Your task to perform on an android device: open app "Facebook Messenger" Image 0: 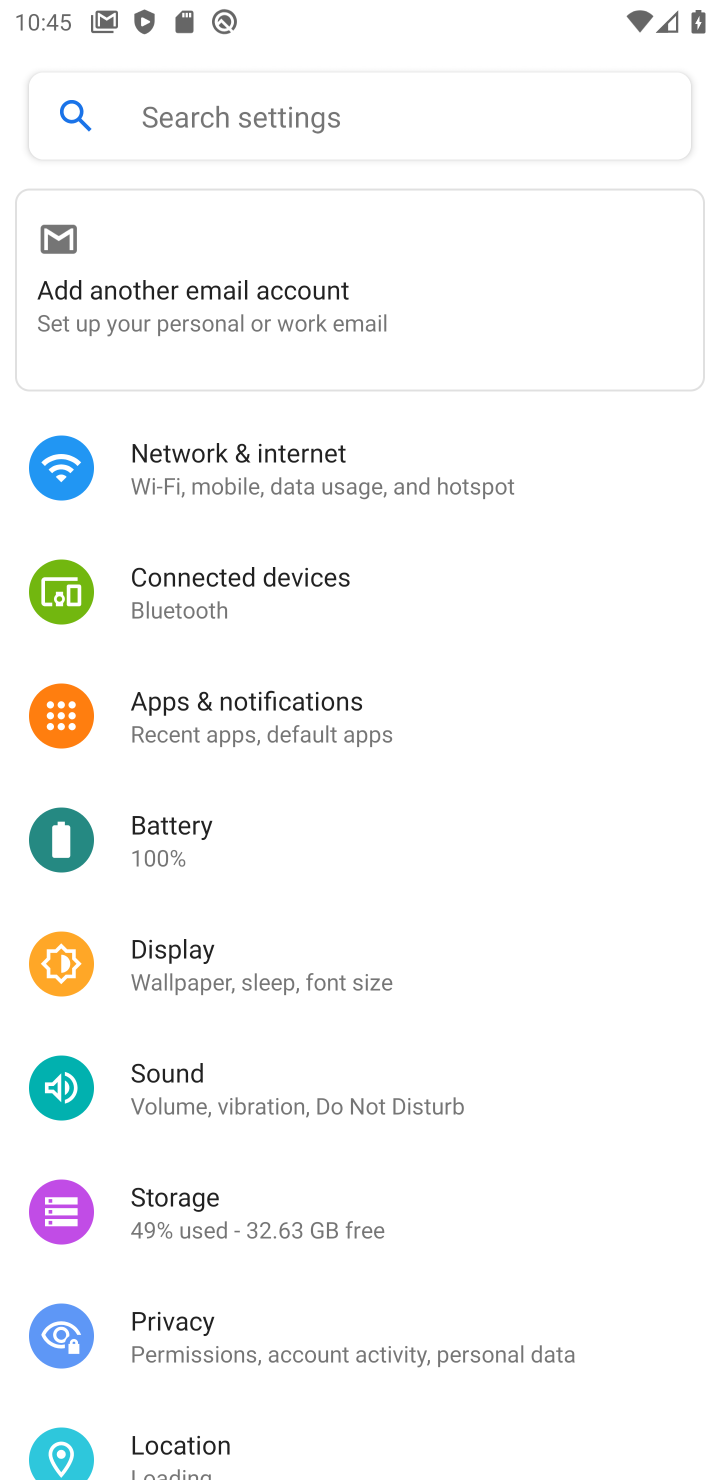
Step 0: press home button
Your task to perform on an android device: open app "Facebook Messenger" Image 1: 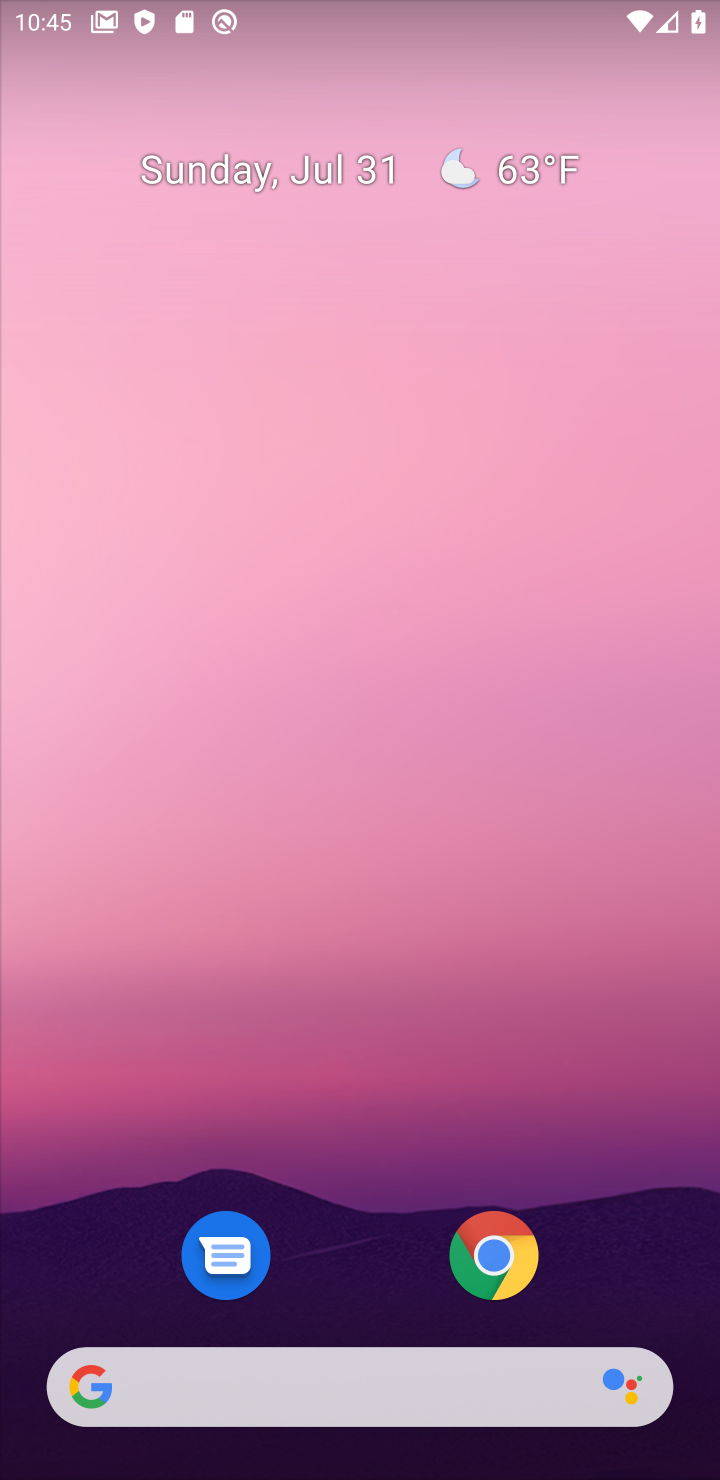
Step 1: drag from (383, 1275) to (473, 0)
Your task to perform on an android device: open app "Facebook Messenger" Image 2: 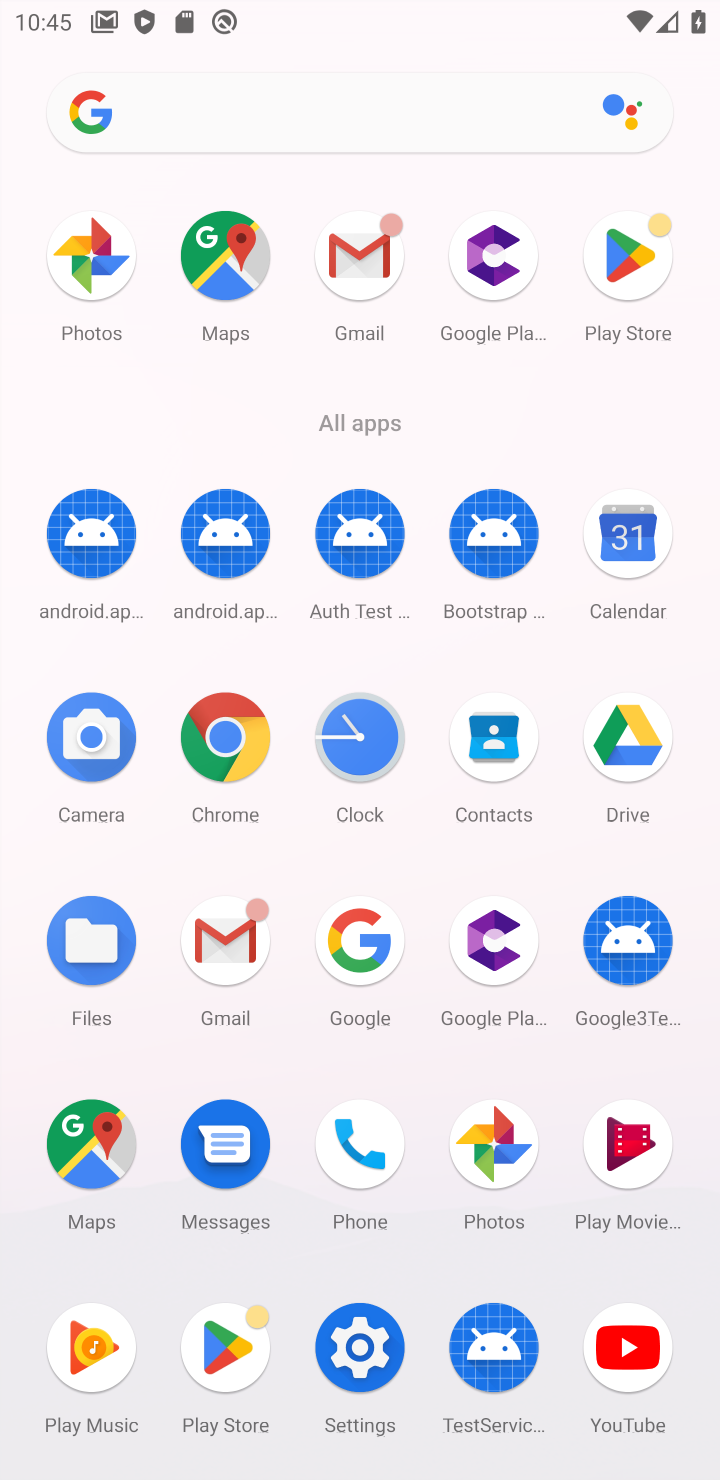
Step 2: click (215, 1385)
Your task to perform on an android device: open app "Facebook Messenger" Image 3: 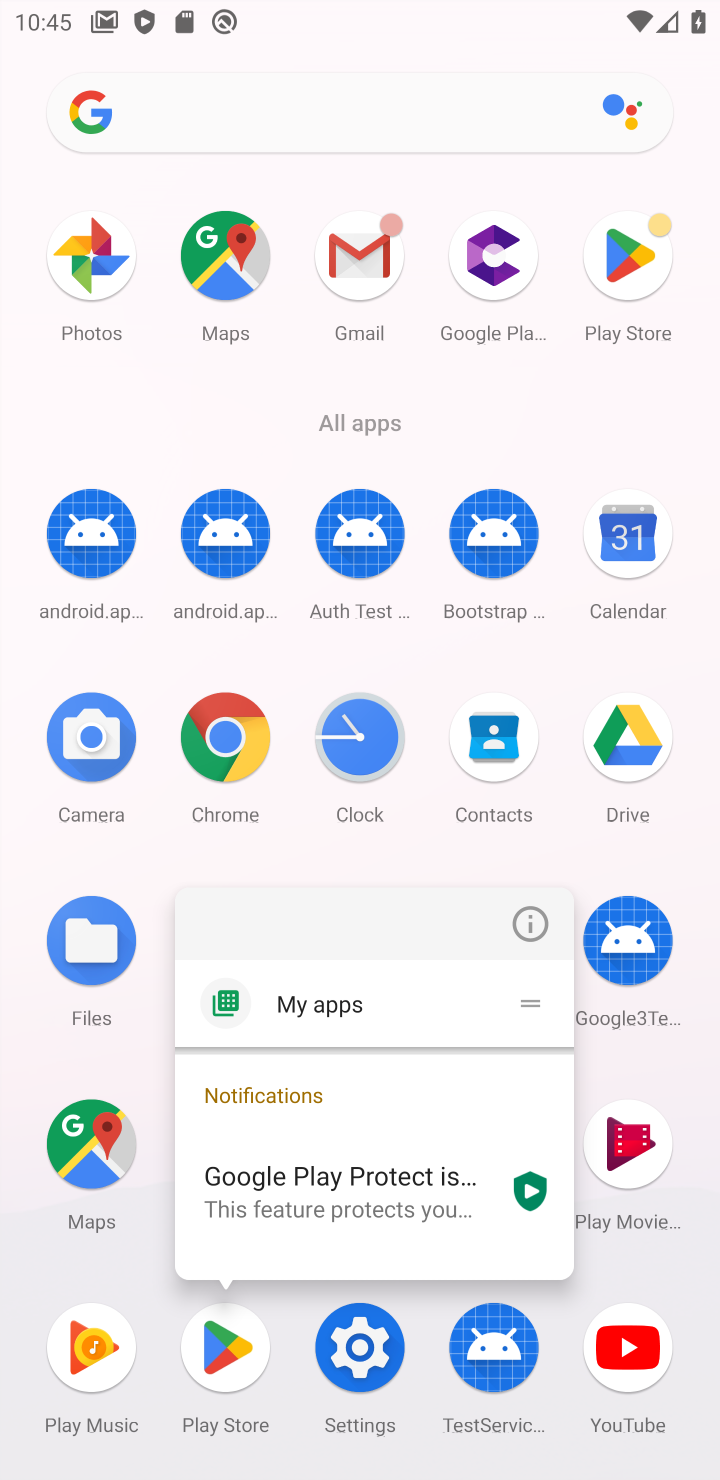
Step 3: click (190, 1329)
Your task to perform on an android device: open app "Facebook Messenger" Image 4: 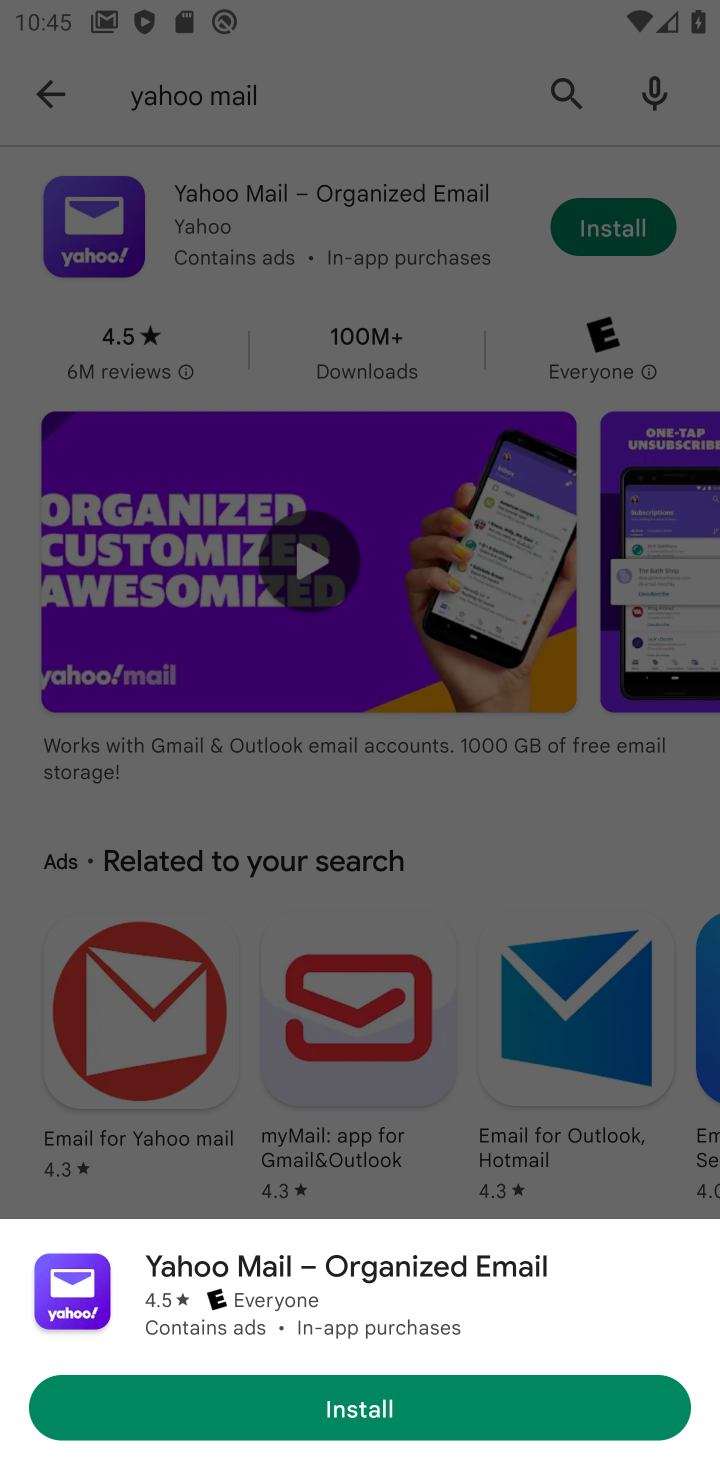
Step 4: click (52, 104)
Your task to perform on an android device: open app "Facebook Messenger" Image 5: 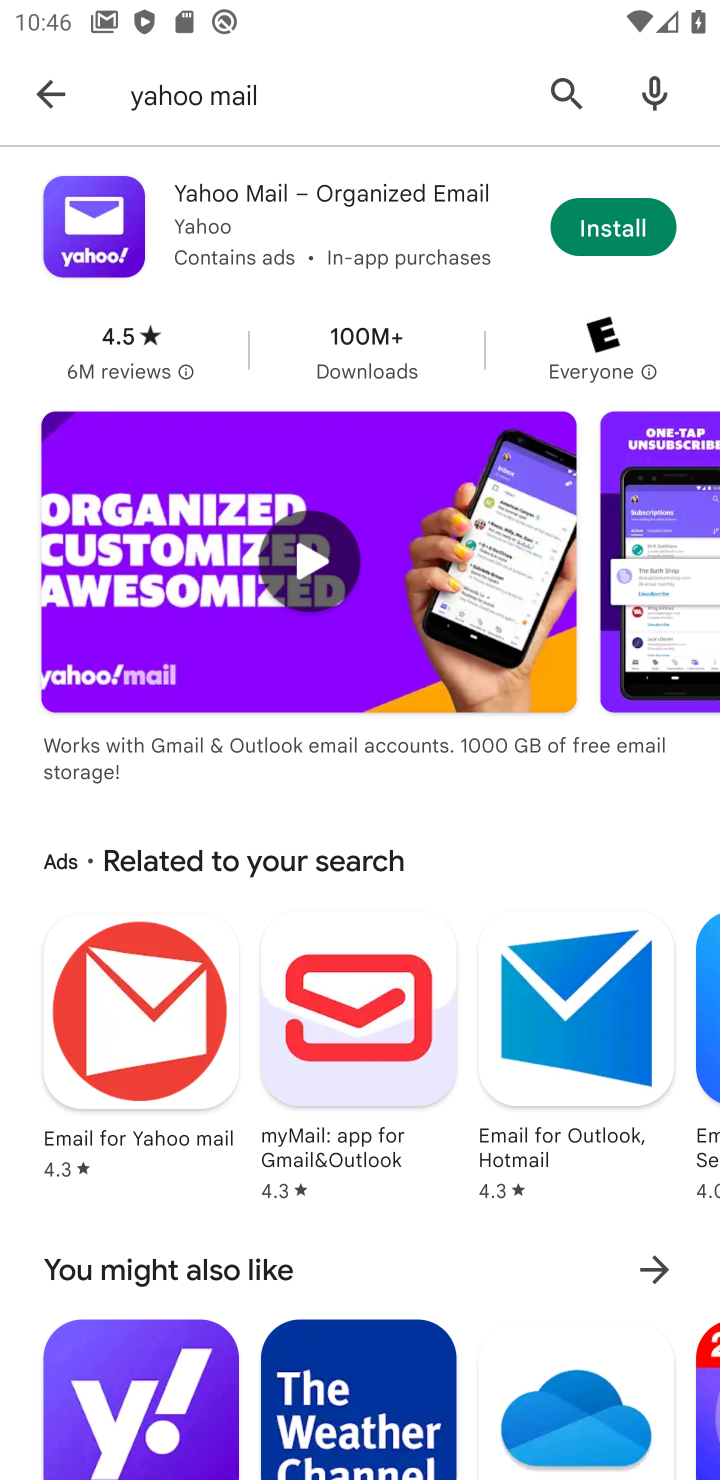
Step 5: click (62, 82)
Your task to perform on an android device: open app "Facebook Messenger" Image 6: 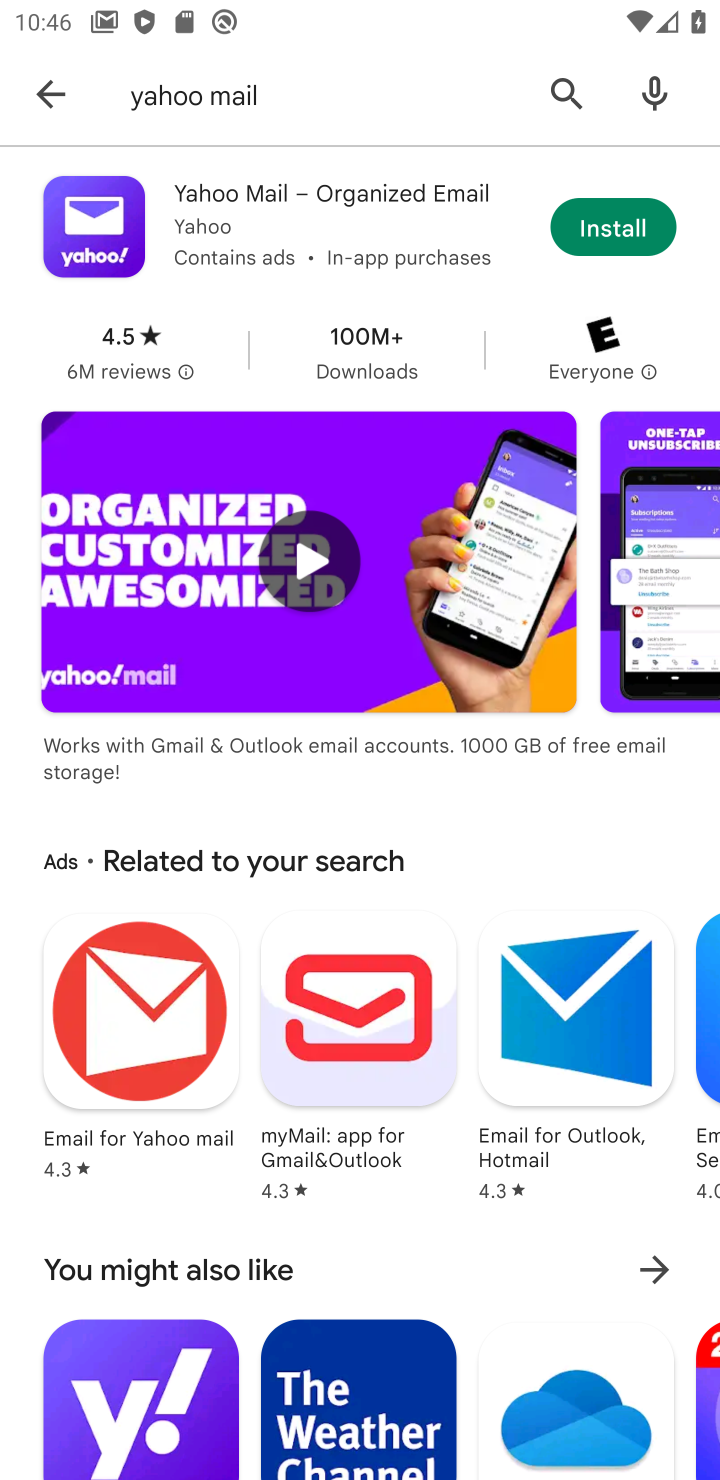
Step 6: click (66, 84)
Your task to perform on an android device: open app "Facebook Messenger" Image 7: 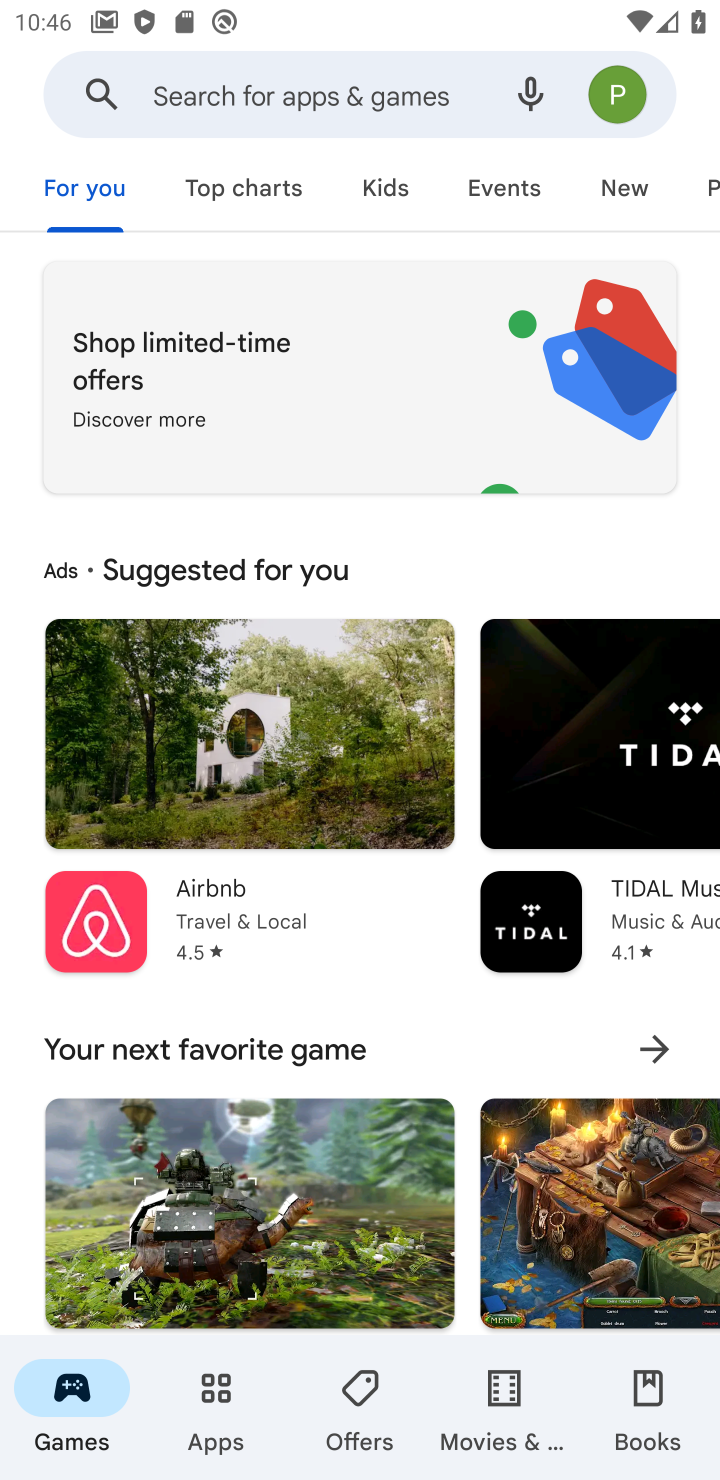
Step 7: click (315, 123)
Your task to perform on an android device: open app "Facebook Messenger" Image 8: 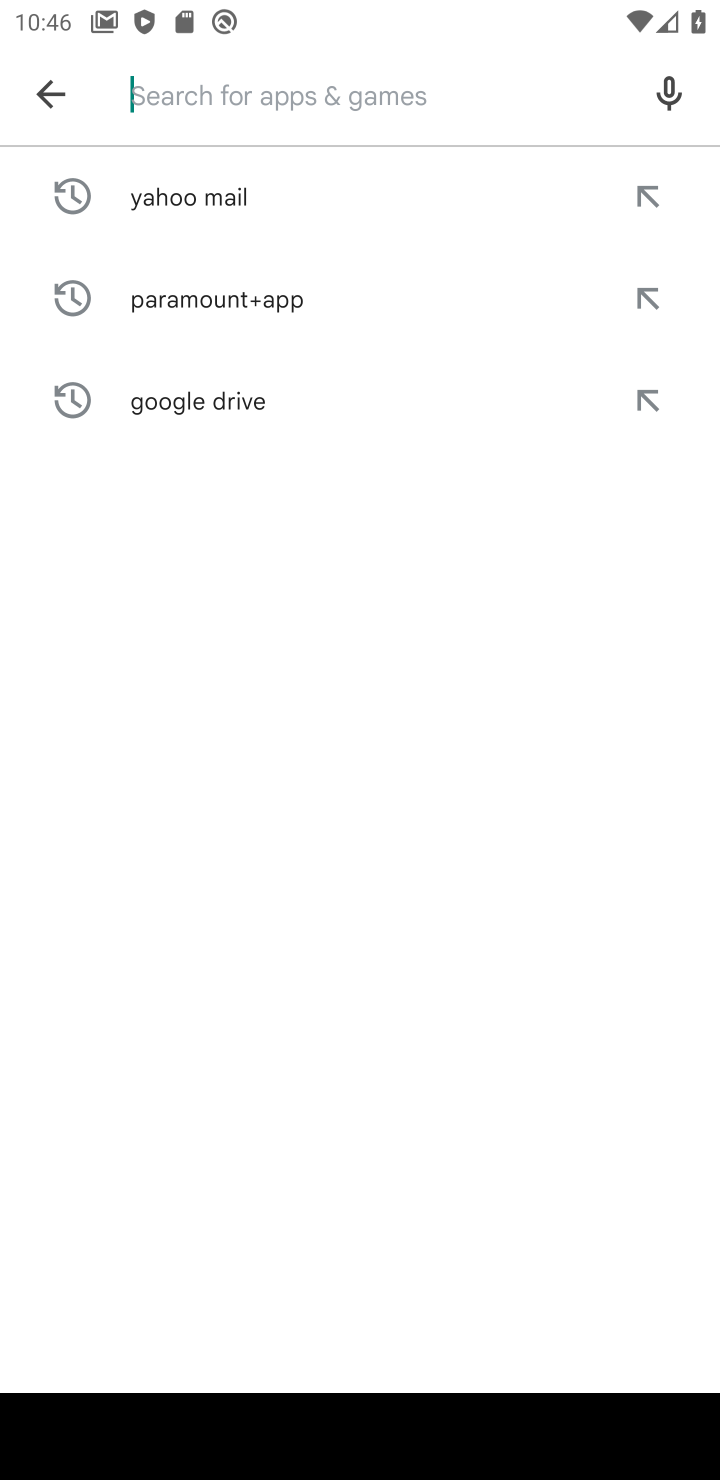
Step 8: type "Facebook Messenger"
Your task to perform on an android device: open app "Facebook Messenger" Image 9: 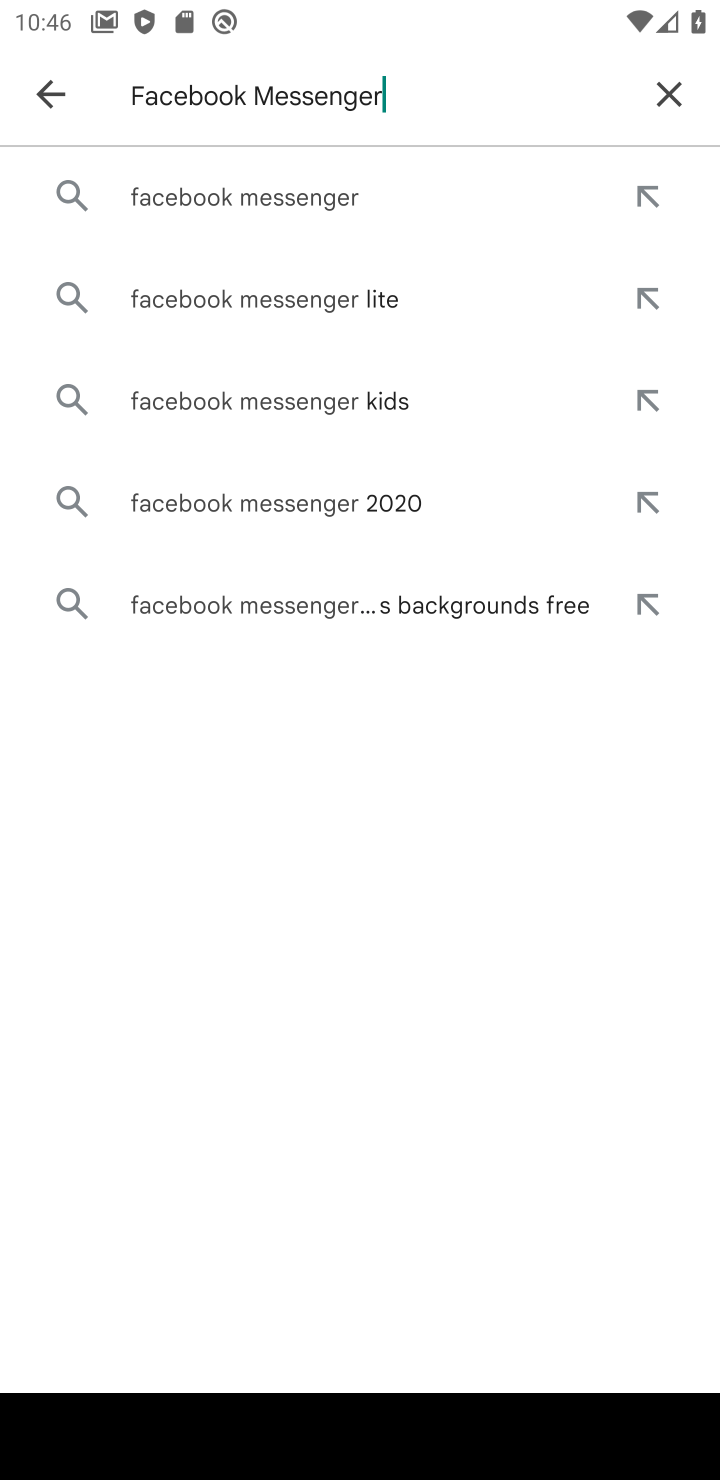
Step 9: click (232, 228)
Your task to perform on an android device: open app "Facebook Messenger" Image 10: 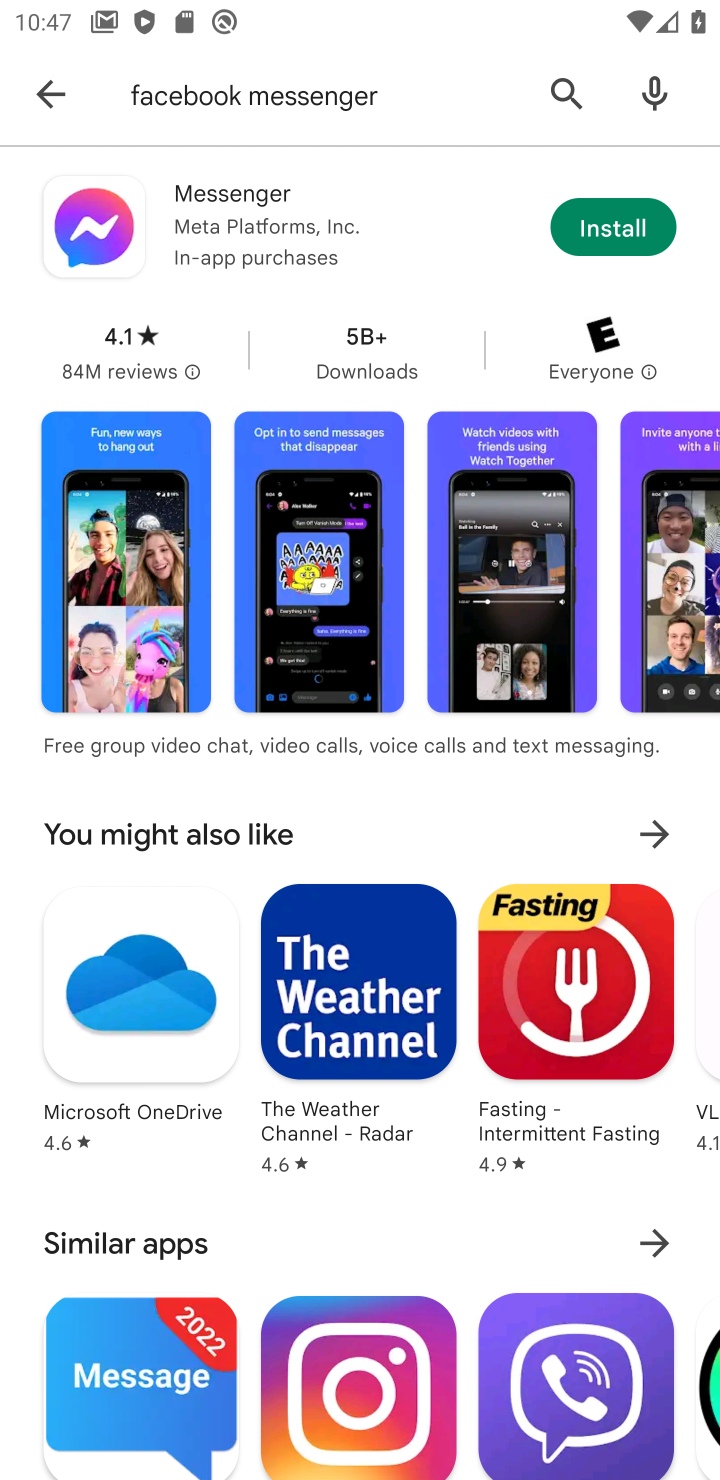
Step 10: task complete